Your task to perform on an android device: change the clock display to show seconds Image 0: 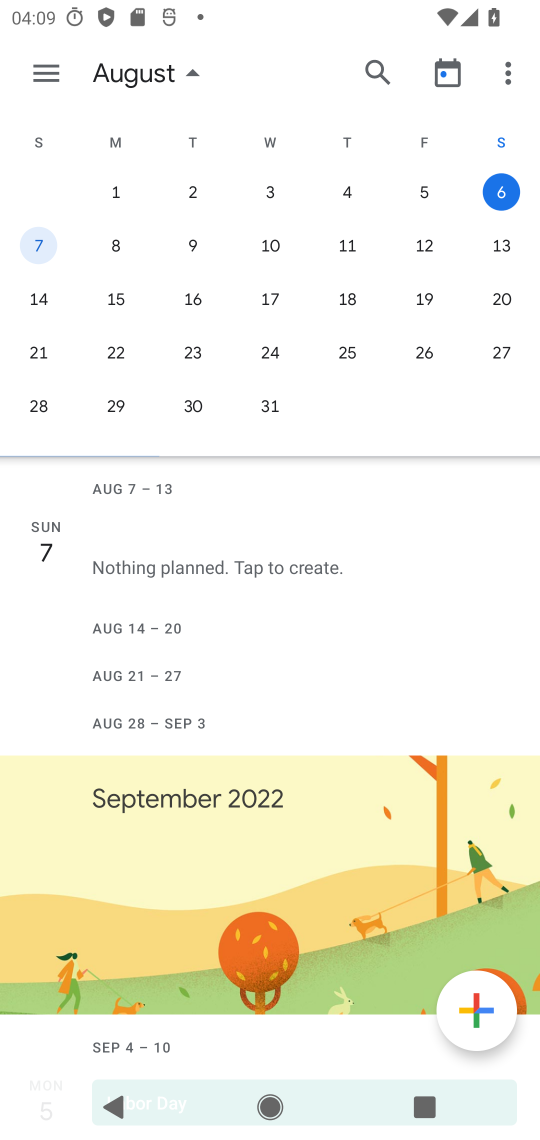
Step 0: press home button
Your task to perform on an android device: change the clock display to show seconds Image 1: 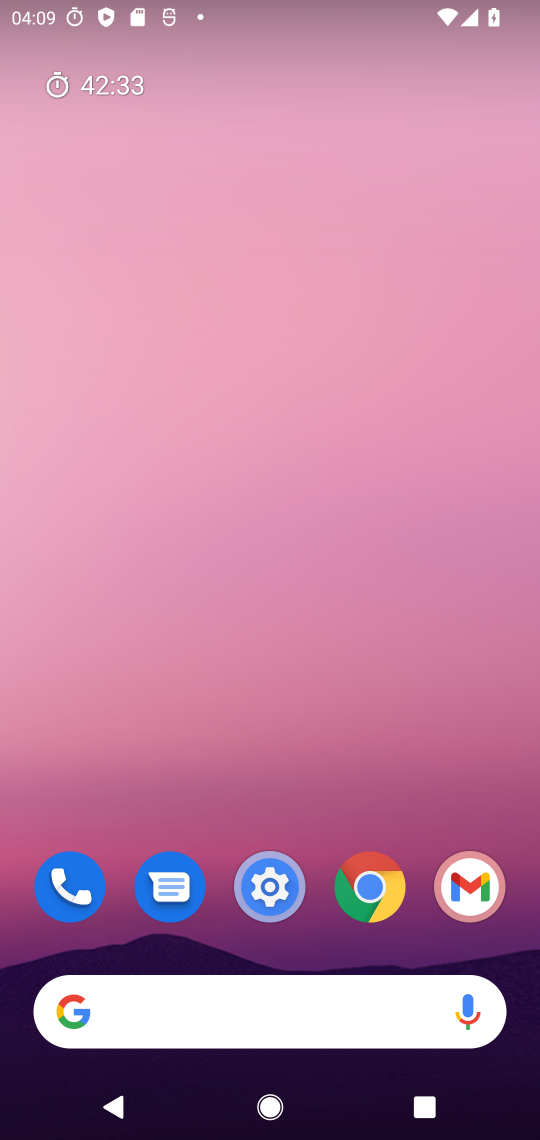
Step 1: drag from (324, 795) to (365, 216)
Your task to perform on an android device: change the clock display to show seconds Image 2: 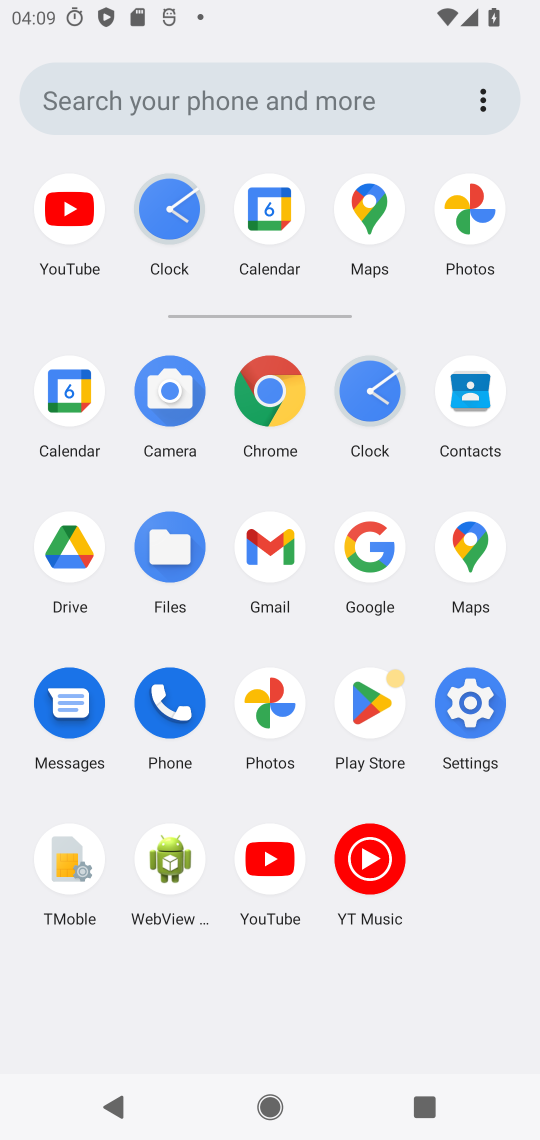
Step 2: click (367, 396)
Your task to perform on an android device: change the clock display to show seconds Image 3: 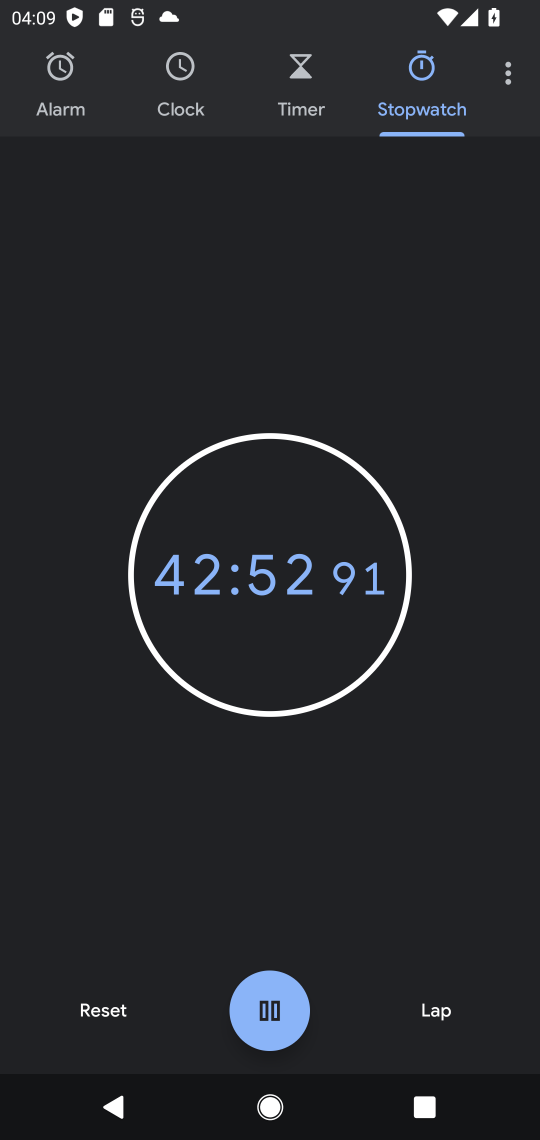
Step 3: click (506, 71)
Your task to perform on an android device: change the clock display to show seconds Image 4: 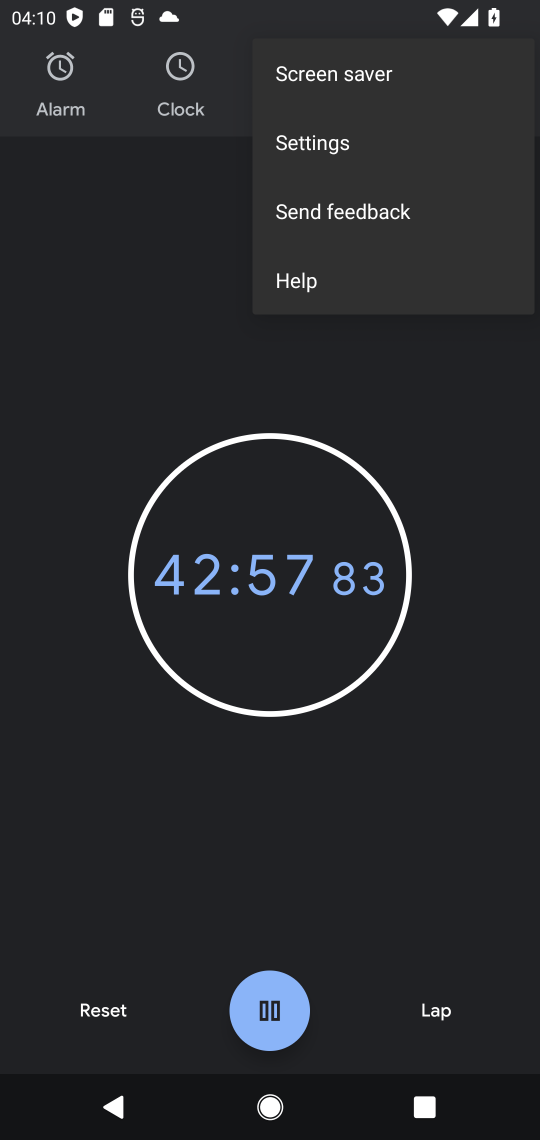
Step 4: click (344, 155)
Your task to perform on an android device: change the clock display to show seconds Image 5: 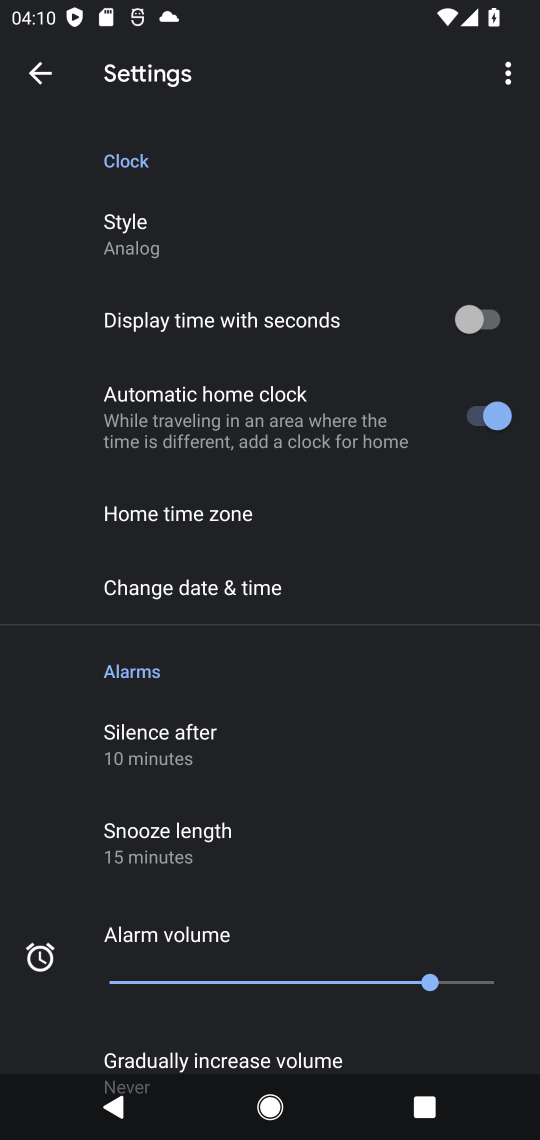
Step 5: drag from (403, 681) to (437, 577)
Your task to perform on an android device: change the clock display to show seconds Image 6: 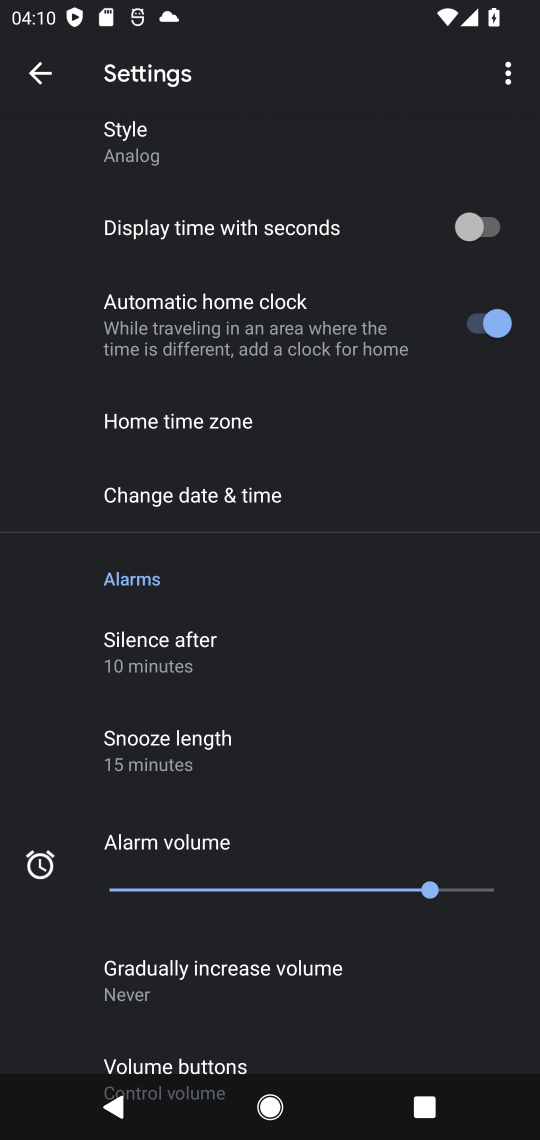
Step 6: drag from (403, 705) to (420, 533)
Your task to perform on an android device: change the clock display to show seconds Image 7: 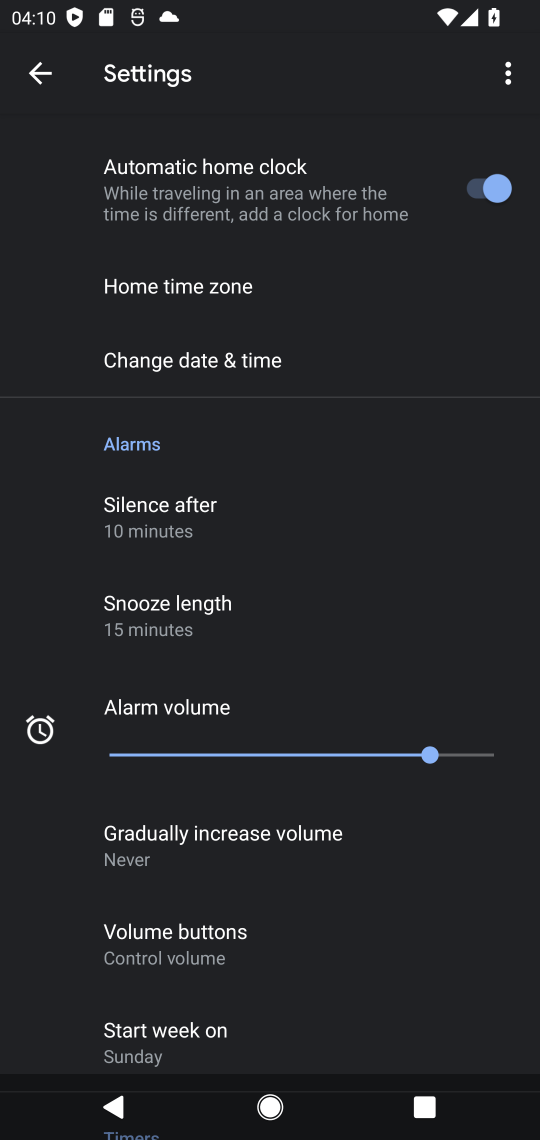
Step 7: drag from (470, 697) to (478, 523)
Your task to perform on an android device: change the clock display to show seconds Image 8: 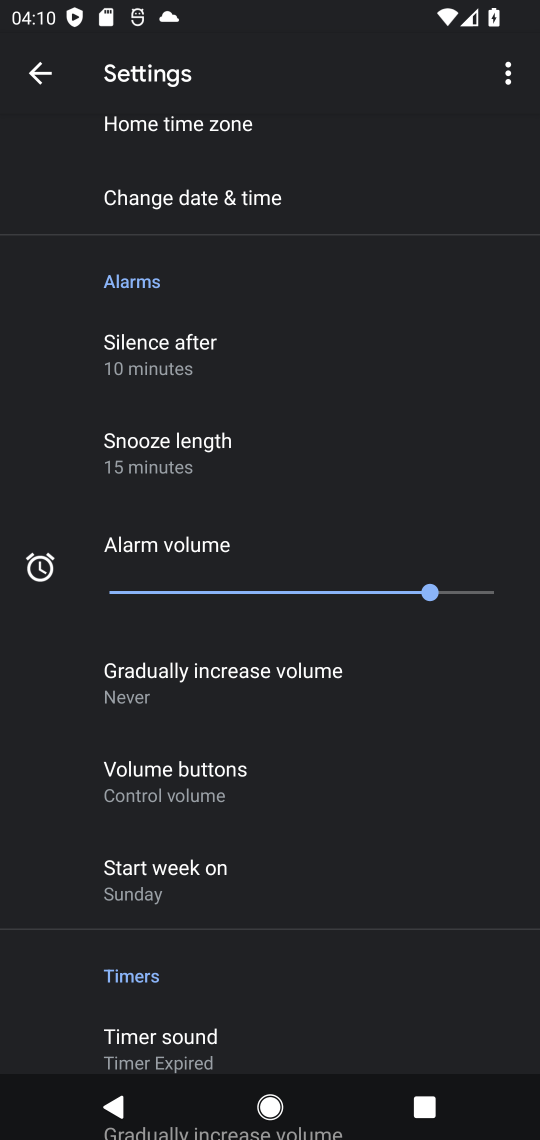
Step 8: drag from (473, 707) to (483, 562)
Your task to perform on an android device: change the clock display to show seconds Image 9: 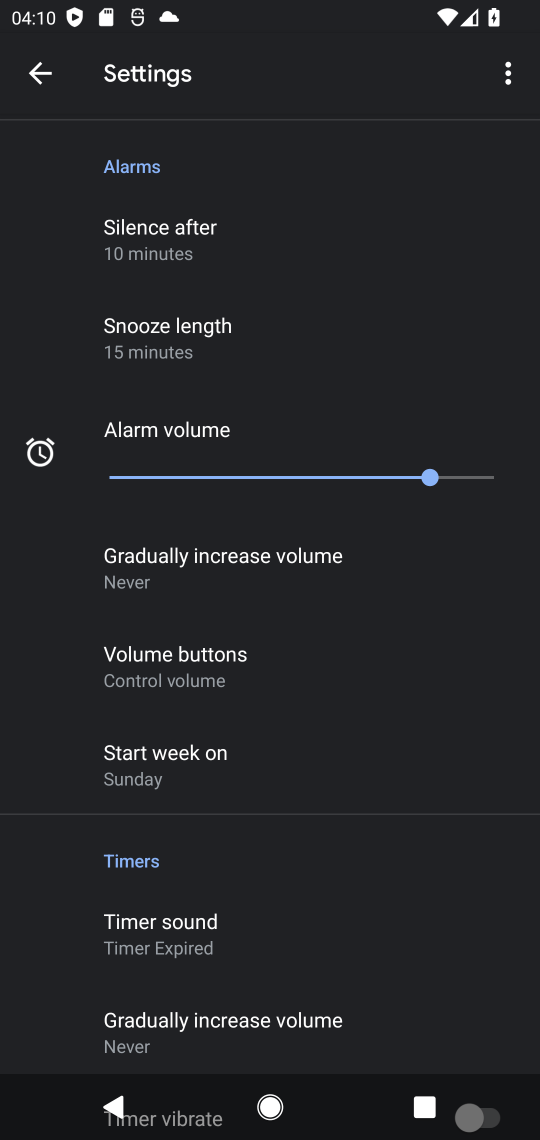
Step 9: drag from (479, 315) to (483, 497)
Your task to perform on an android device: change the clock display to show seconds Image 10: 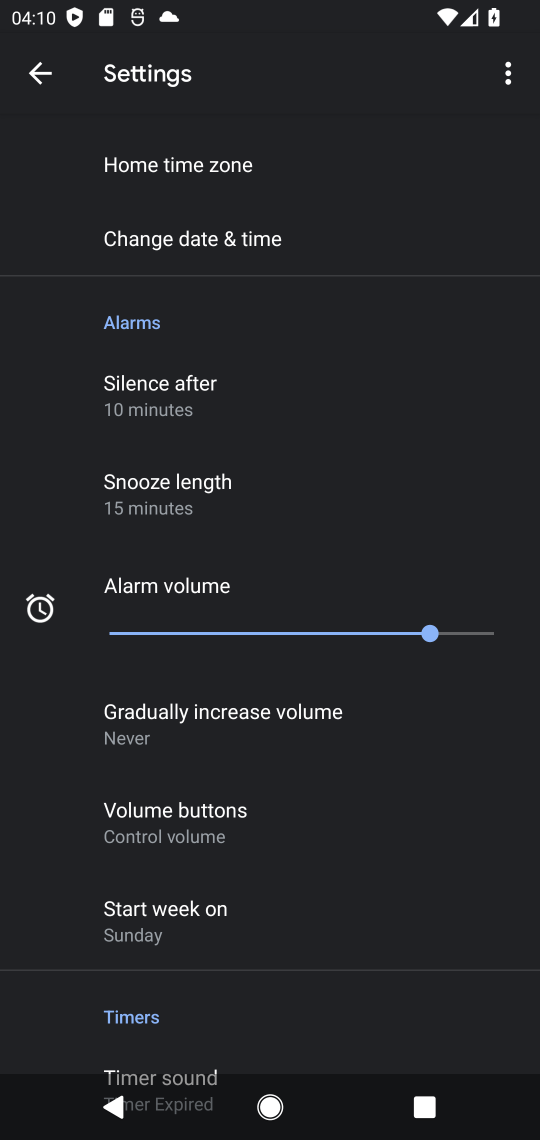
Step 10: drag from (479, 230) to (481, 448)
Your task to perform on an android device: change the clock display to show seconds Image 11: 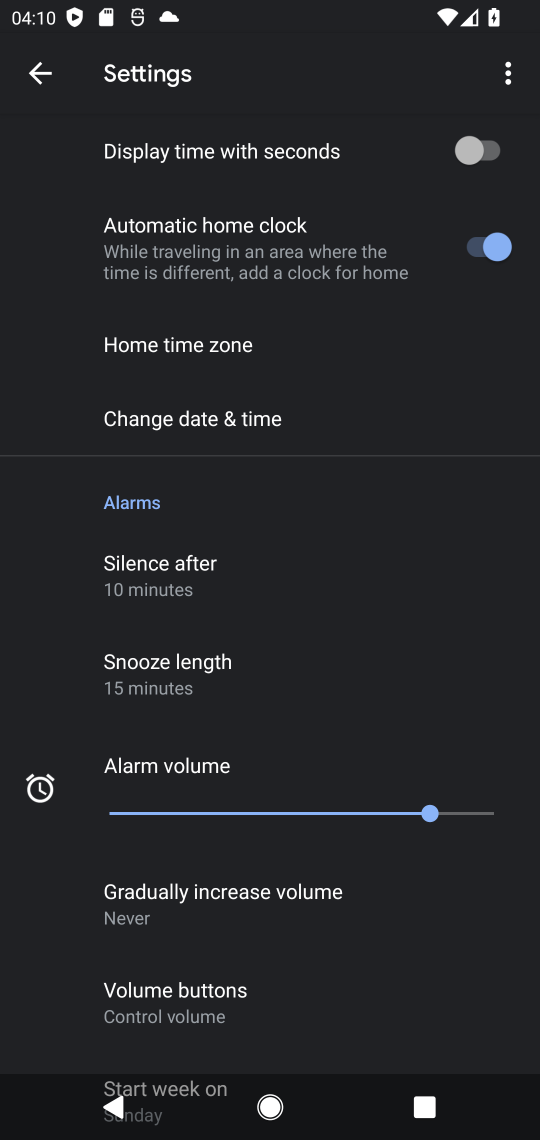
Step 11: drag from (430, 198) to (438, 513)
Your task to perform on an android device: change the clock display to show seconds Image 12: 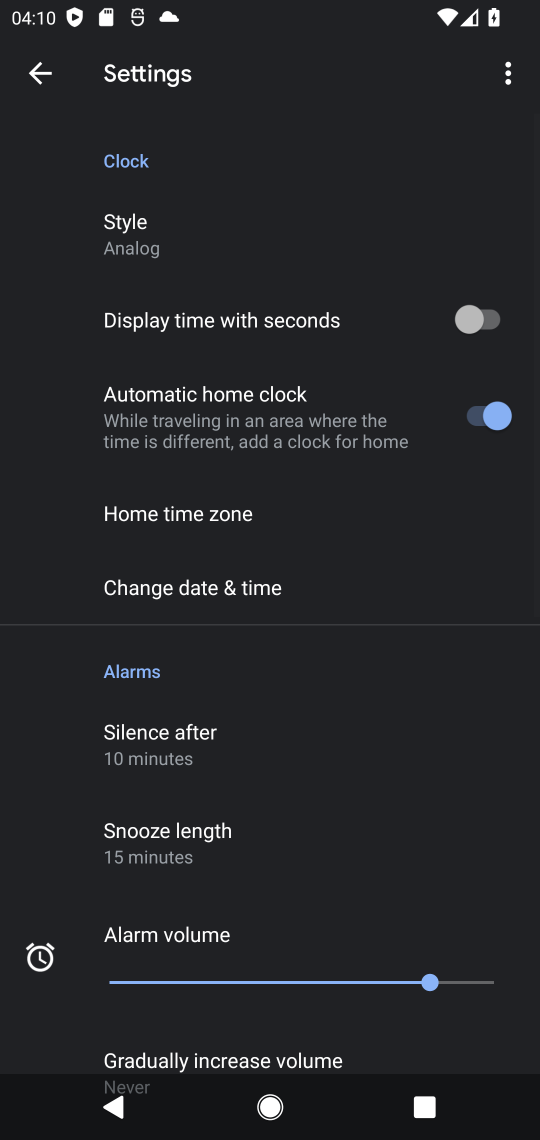
Step 12: click (467, 329)
Your task to perform on an android device: change the clock display to show seconds Image 13: 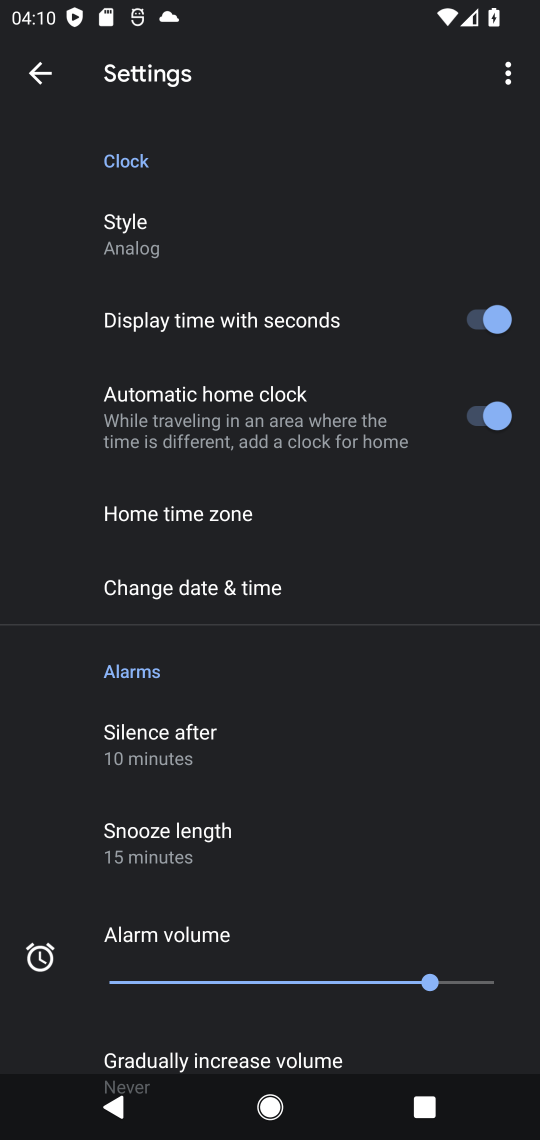
Step 13: task complete